Your task to perform on an android device: turn on showing notifications on the lock screen Image 0: 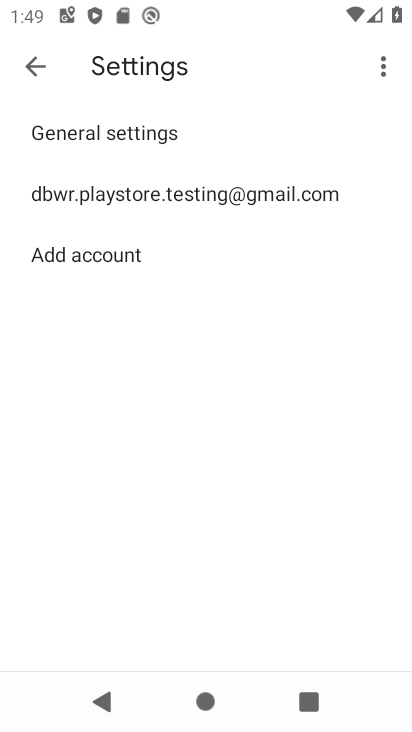
Step 0: press home button
Your task to perform on an android device: turn on showing notifications on the lock screen Image 1: 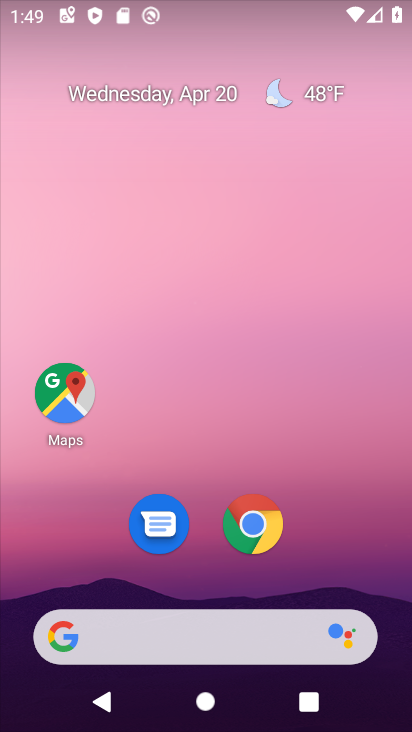
Step 1: drag from (295, 554) to (259, 73)
Your task to perform on an android device: turn on showing notifications on the lock screen Image 2: 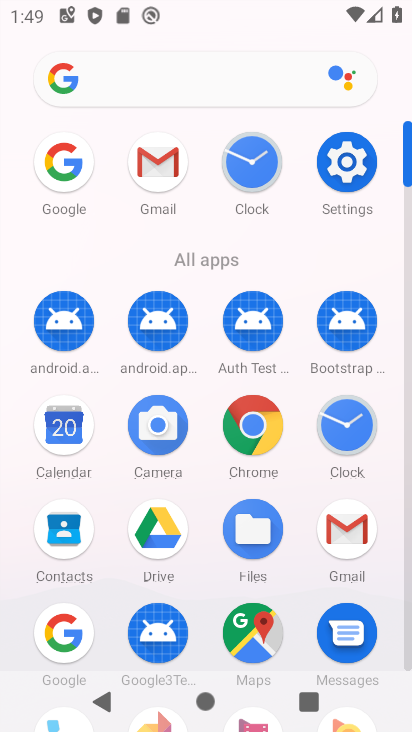
Step 2: click (329, 160)
Your task to perform on an android device: turn on showing notifications on the lock screen Image 3: 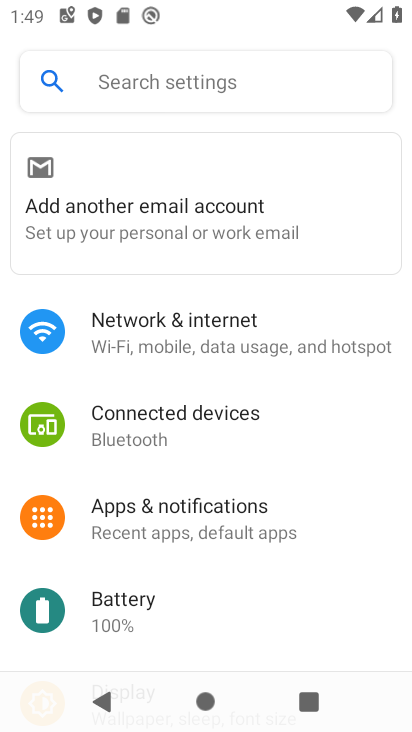
Step 3: click (235, 497)
Your task to perform on an android device: turn on showing notifications on the lock screen Image 4: 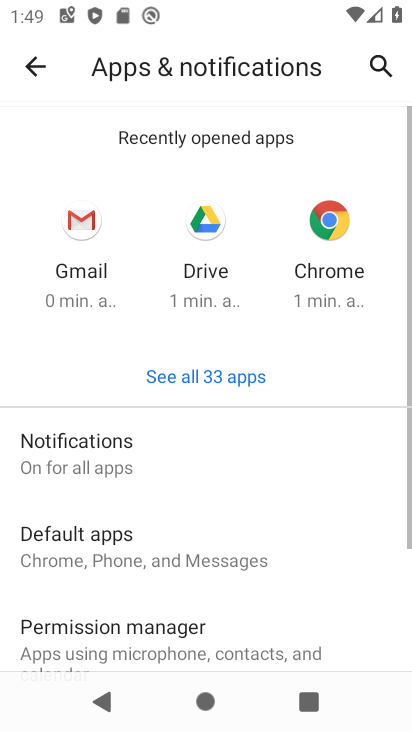
Step 4: click (146, 462)
Your task to perform on an android device: turn on showing notifications on the lock screen Image 5: 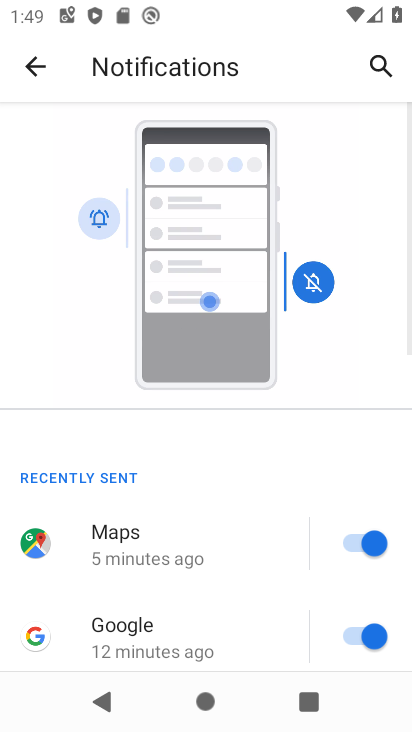
Step 5: drag from (277, 583) to (261, 67)
Your task to perform on an android device: turn on showing notifications on the lock screen Image 6: 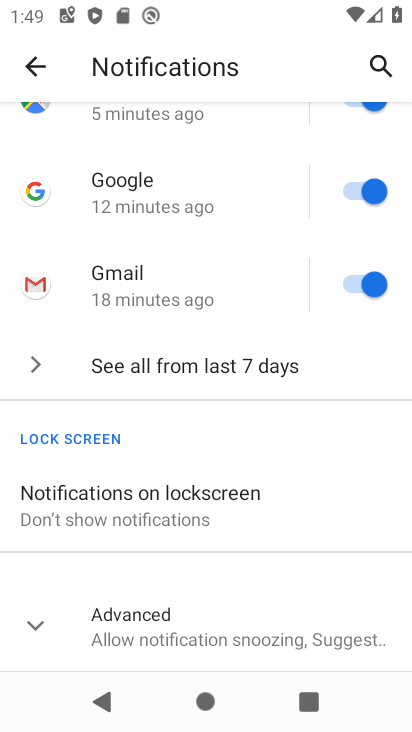
Step 6: click (260, 487)
Your task to perform on an android device: turn on showing notifications on the lock screen Image 7: 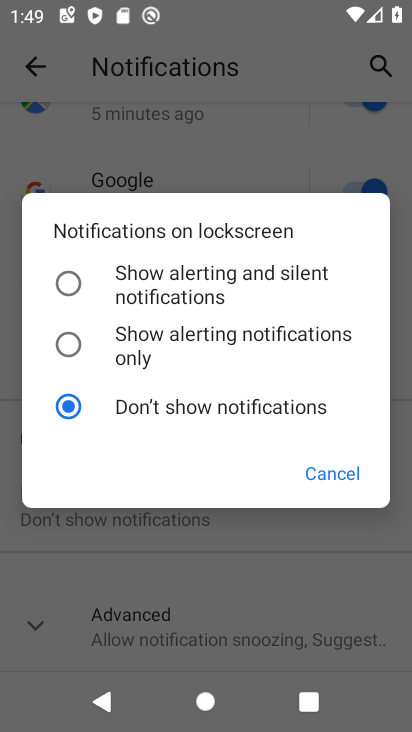
Step 7: click (66, 270)
Your task to perform on an android device: turn on showing notifications on the lock screen Image 8: 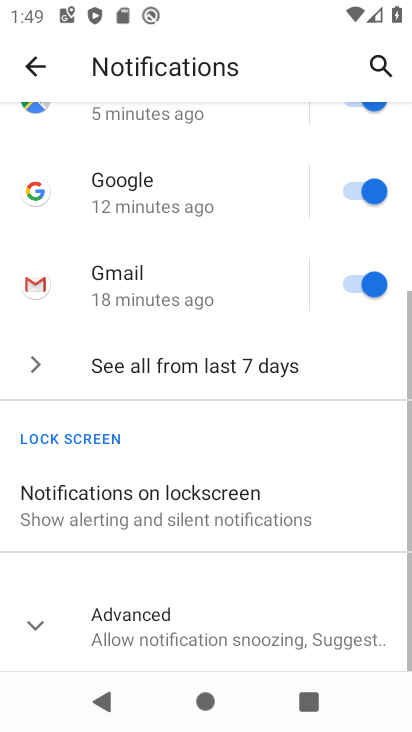
Step 8: task complete